Your task to perform on an android device: turn on javascript in the chrome app Image 0: 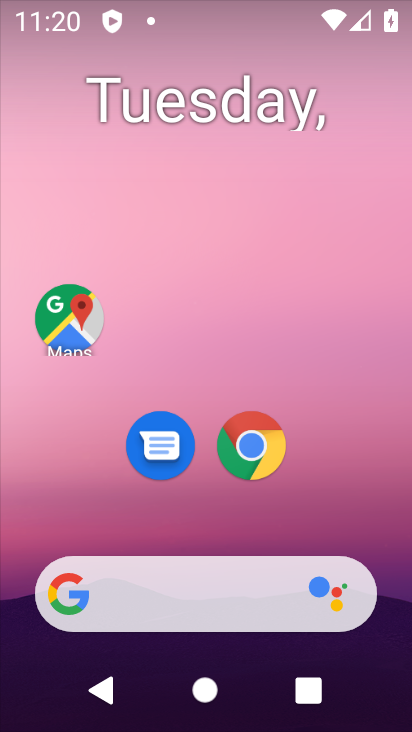
Step 0: drag from (321, 511) to (274, 24)
Your task to perform on an android device: turn on javascript in the chrome app Image 1: 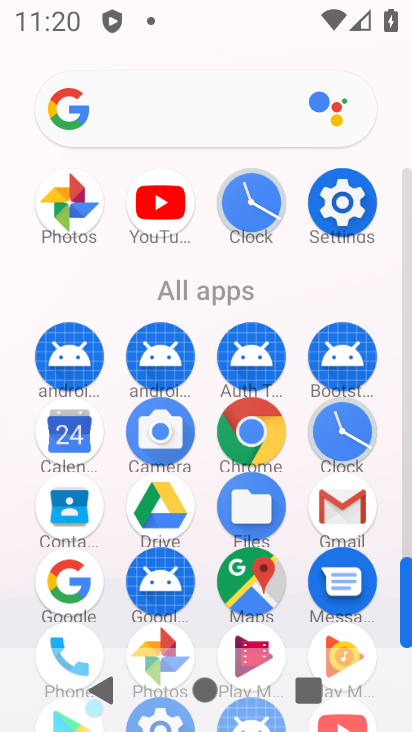
Step 1: drag from (9, 579) to (25, 225)
Your task to perform on an android device: turn on javascript in the chrome app Image 2: 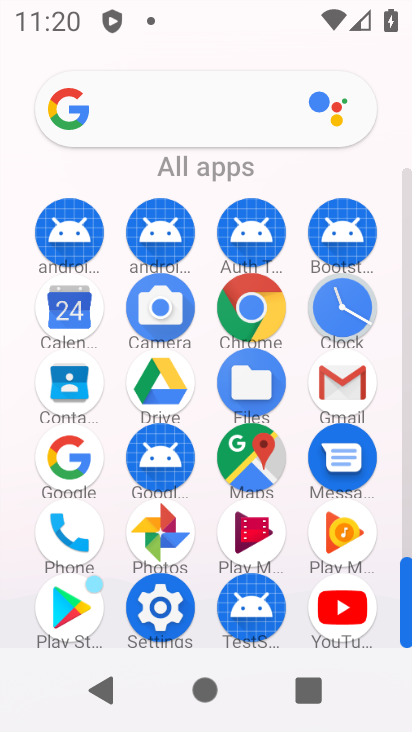
Step 2: click (250, 306)
Your task to perform on an android device: turn on javascript in the chrome app Image 3: 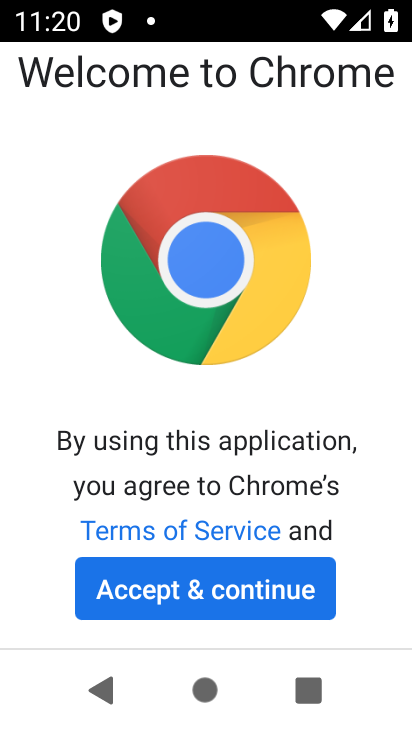
Step 3: click (171, 600)
Your task to perform on an android device: turn on javascript in the chrome app Image 4: 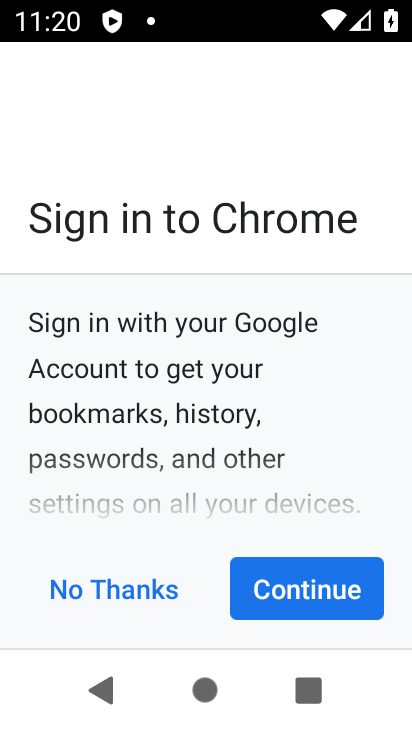
Step 4: click (258, 588)
Your task to perform on an android device: turn on javascript in the chrome app Image 5: 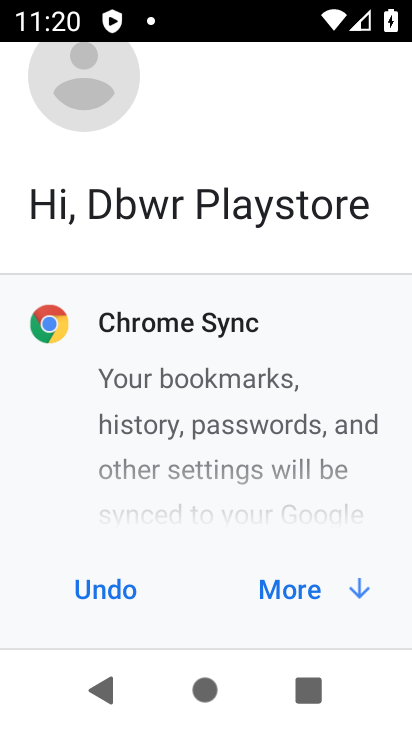
Step 5: click (286, 587)
Your task to perform on an android device: turn on javascript in the chrome app Image 6: 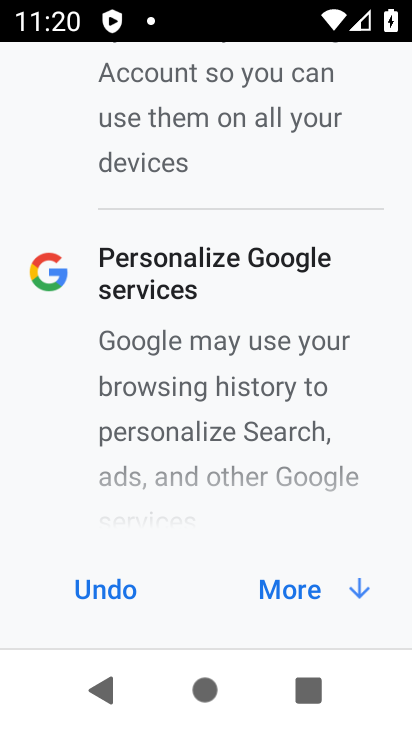
Step 6: click (291, 586)
Your task to perform on an android device: turn on javascript in the chrome app Image 7: 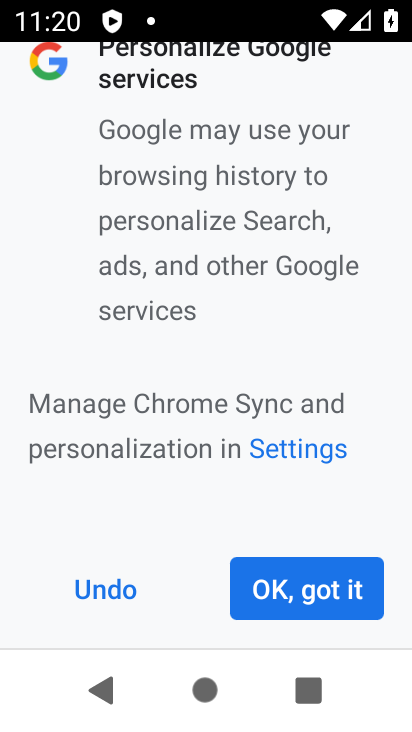
Step 7: click (291, 586)
Your task to perform on an android device: turn on javascript in the chrome app Image 8: 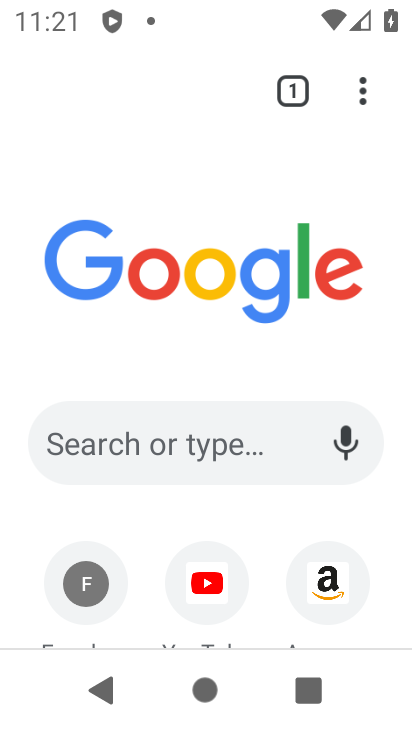
Step 8: drag from (359, 84) to (113, 465)
Your task to perform on an android device: turn on javascript in the chrome app Image 9: 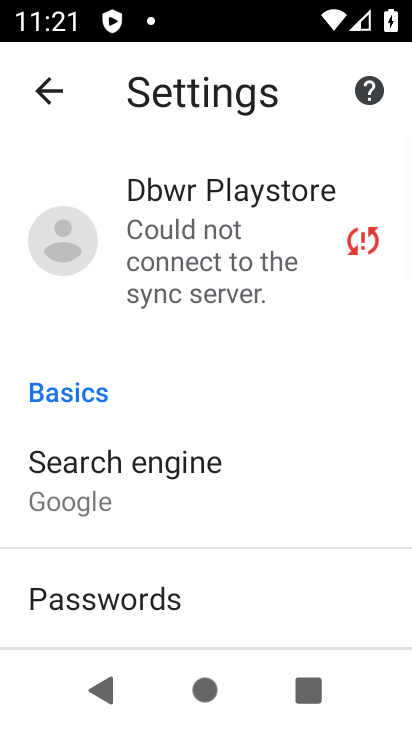
Step 9: drag from (227, 560) to (226, 114)
Your task to perform on an android device: turn on javascript in the chrome app Image 10: 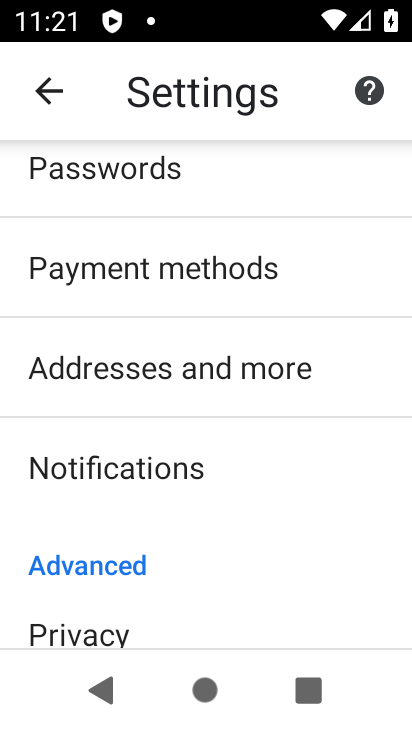
Step 10: drag from (227, 552) to (234, 194)
Your task to perform on an android device: turn on javascript in the chrome app Image 11: 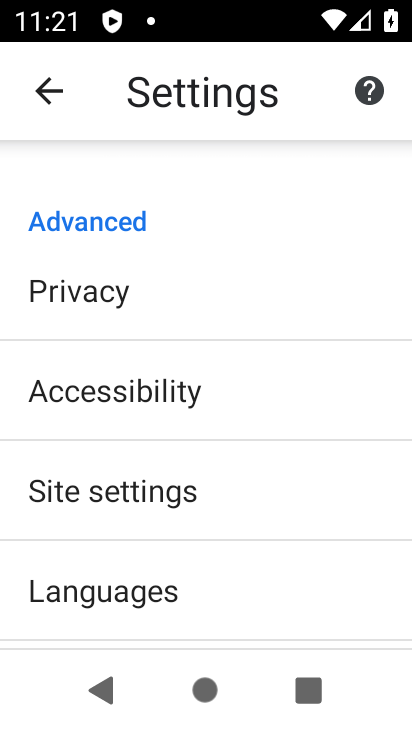
Step 11: drag from (233, 585) to (263, 219)
Your task to perform on an android device: turn on javascript in the chrome app Image 12: 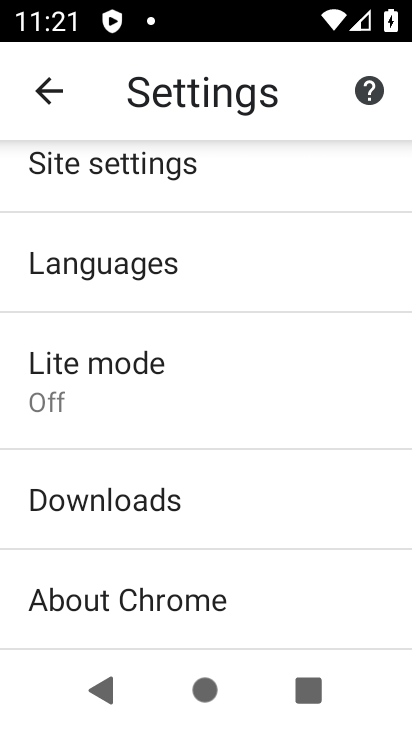
Step 12: drag from (262, 536) to (256, 184)
Your task to perform on an android device: turn on javascript in the chrome app Image 13: 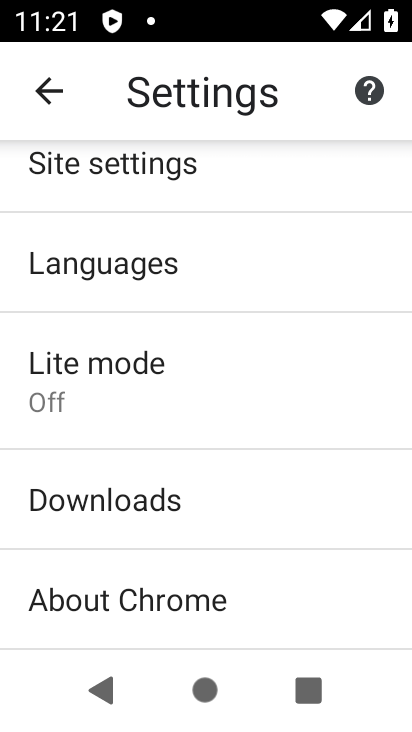
Step 13: drag from (261, 229) to (260, 515)
Your task to perform on an android device: turn on javascript in the chrome app Image 14: 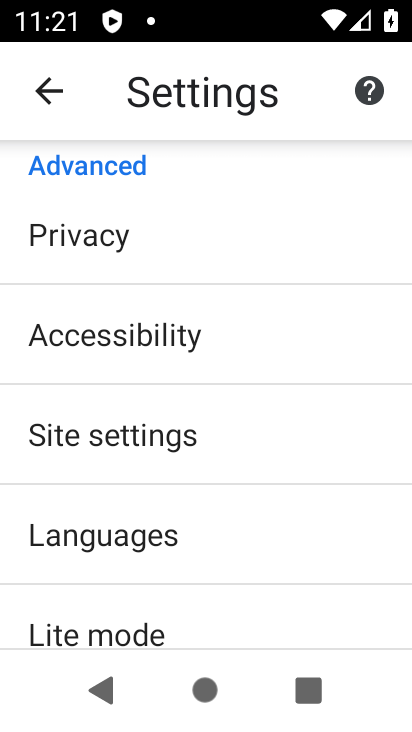
Step 14: click (192, 444)
Your task to perform on an android device: turn on javascript in the chrome app Image 15: 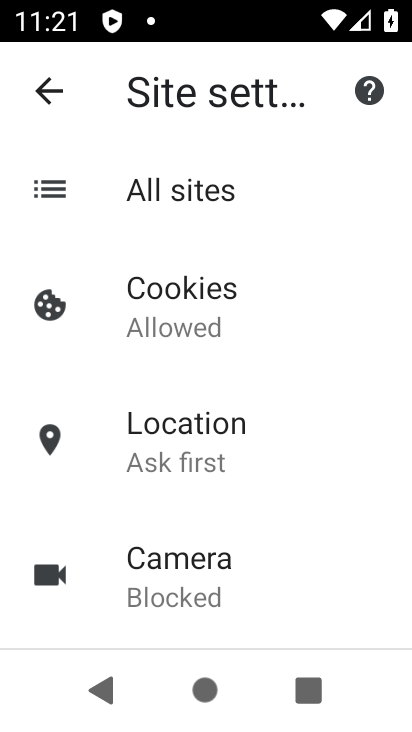
Step 15: task complete